Your task to perform on an android device: Open the calendar app, open the side menu, and click the "Day" option Image 0: 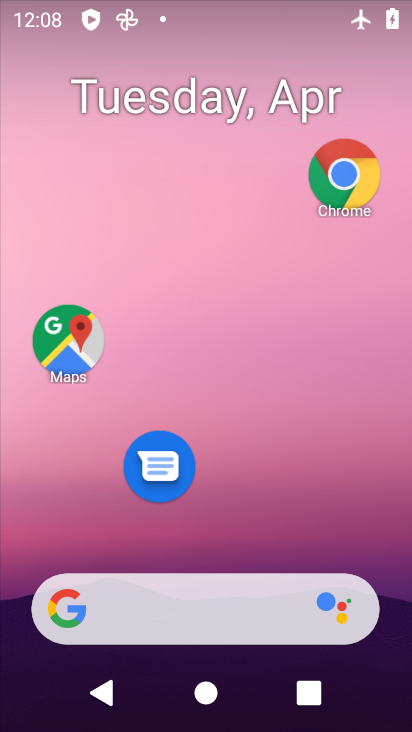
Step 0: drag from (248, 624) to (283, 98)
Your task to perform on an android device: Open the calendar app, open the side menu, and click the "Day" option Image 1: 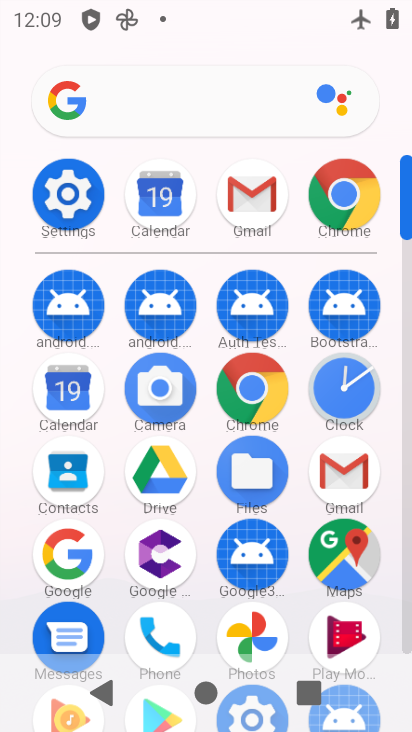
Step 1: click (81, 409)
Your task to perform on an android device: Open the calendar app, open the side menu, and click the "Day" option Image 2: 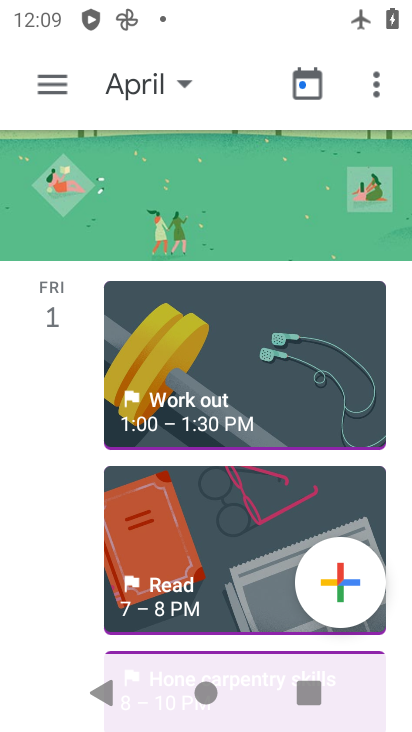
Step 2: click (55, 81)
Your task to perform on an android device: Open the calendar app, open the side menu, and click the "Day" option Image 3: 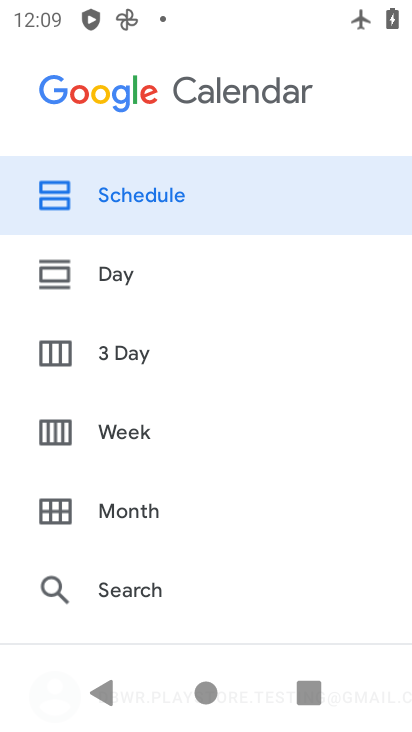
Step 3: click (97, 289)
Your task to perform on an android device: Open the calendar app, open the side menu, and click the "Day" option Image 4: 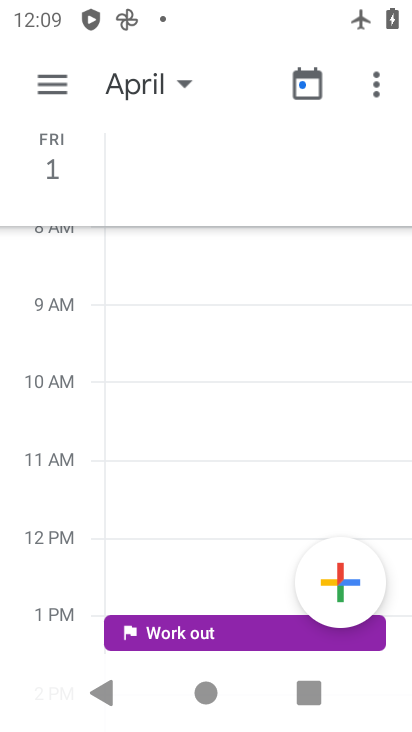
Step 4: task complete